Your task to perform on an android device: visit the assistant section in the google photos Image 0: 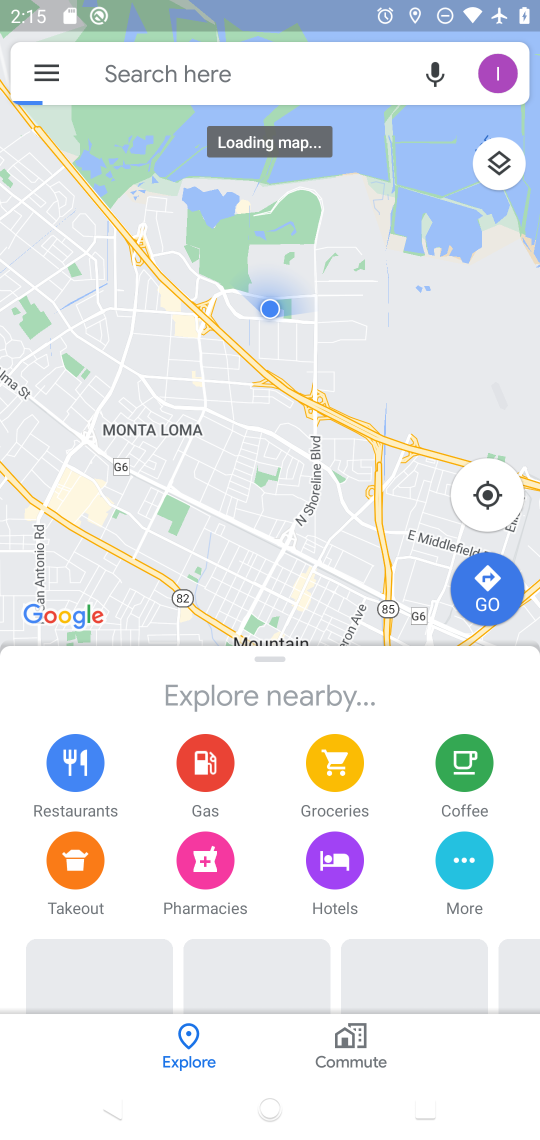
Step 0: press home button
Your task to perform on an android device: visit the assistant section in the google photos Image 1: 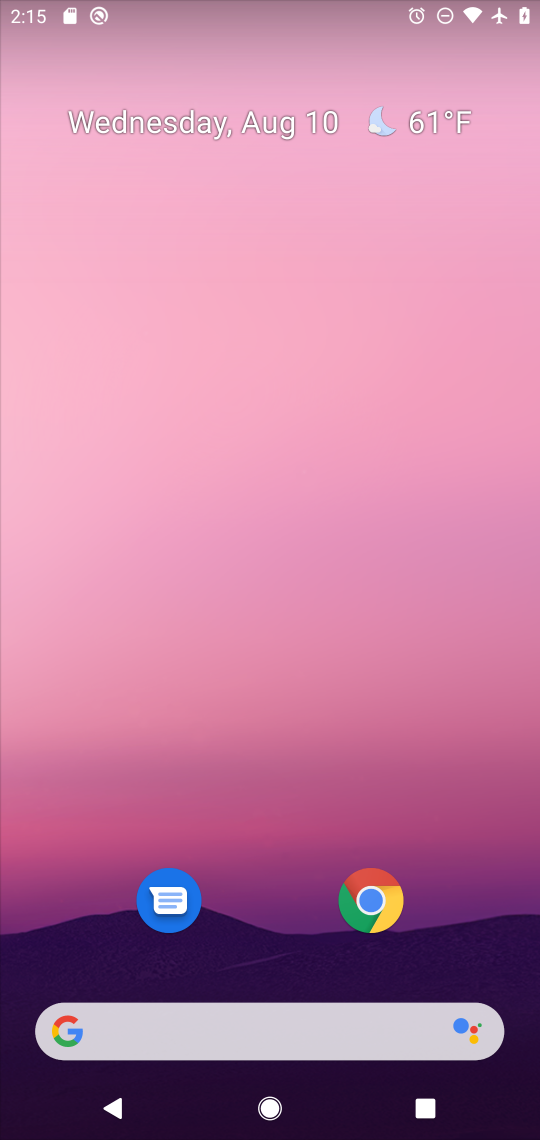
Step 1: drag from (280, 873) to (362, 0)
Your task to perform on an android device: visit the assistant section in the google photos Image 2: 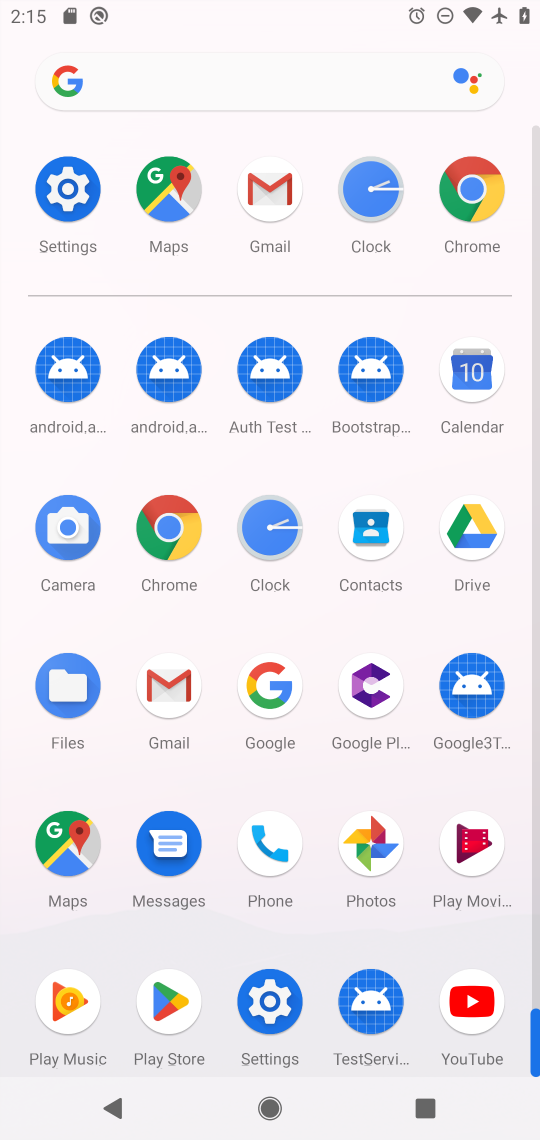
Step 2: click (375, 846)
Your task to perform on an android device: visit the assistant section in the google photos Image 3: 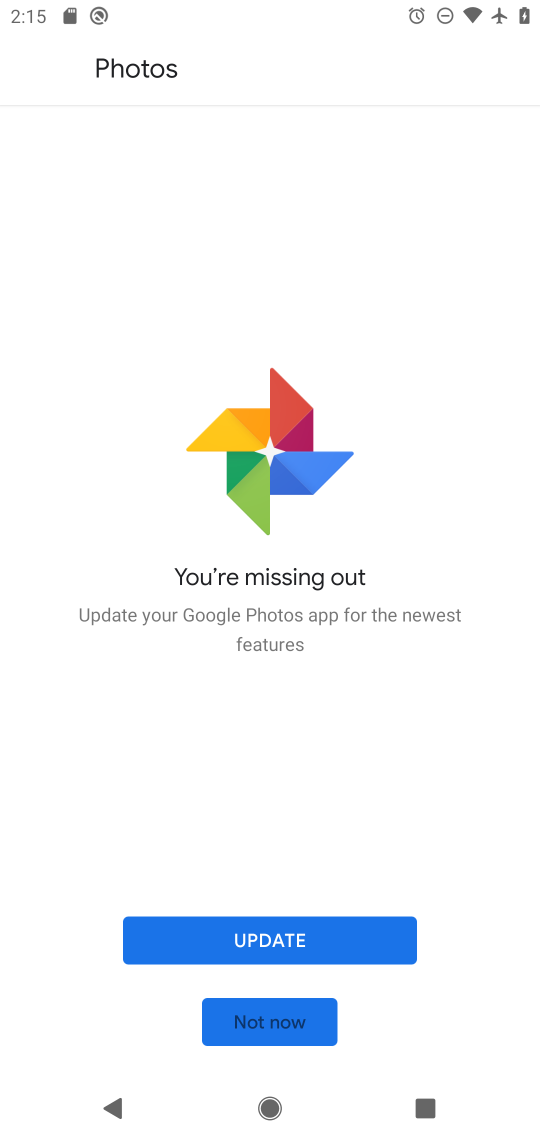
Step 3: click (318, 1032)
Your task to perform on an android device: visit the assistant section in the google photos Image 4: 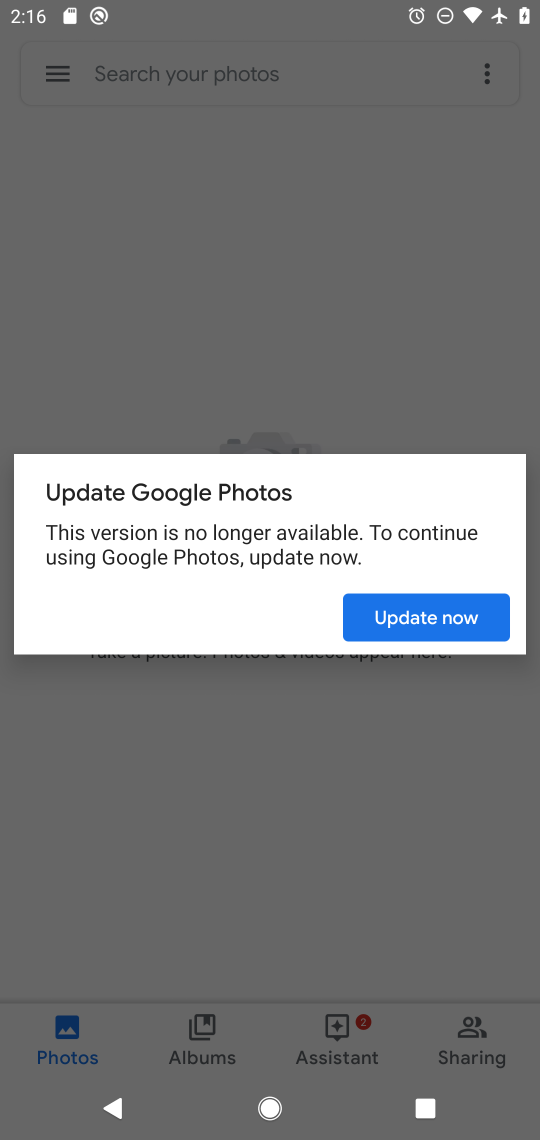
Step 4: click (482, 620)
Your task to perform on an android device: visit the assistant section in the google photos Image 5: 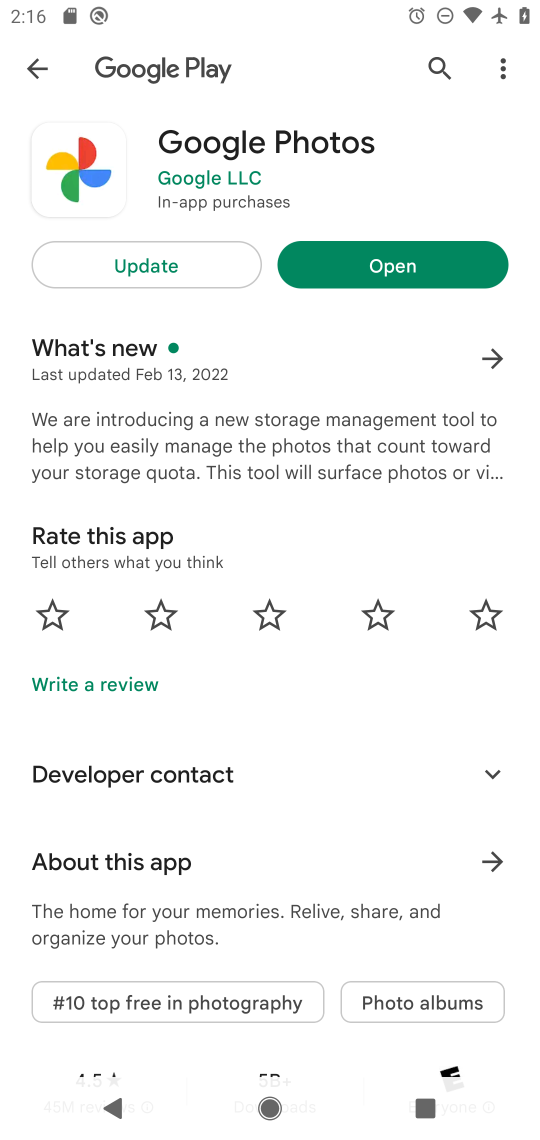
Step 5: click (443, 273)
Your task to perform on an android device: visit the assistant section in the google photos Image 6: 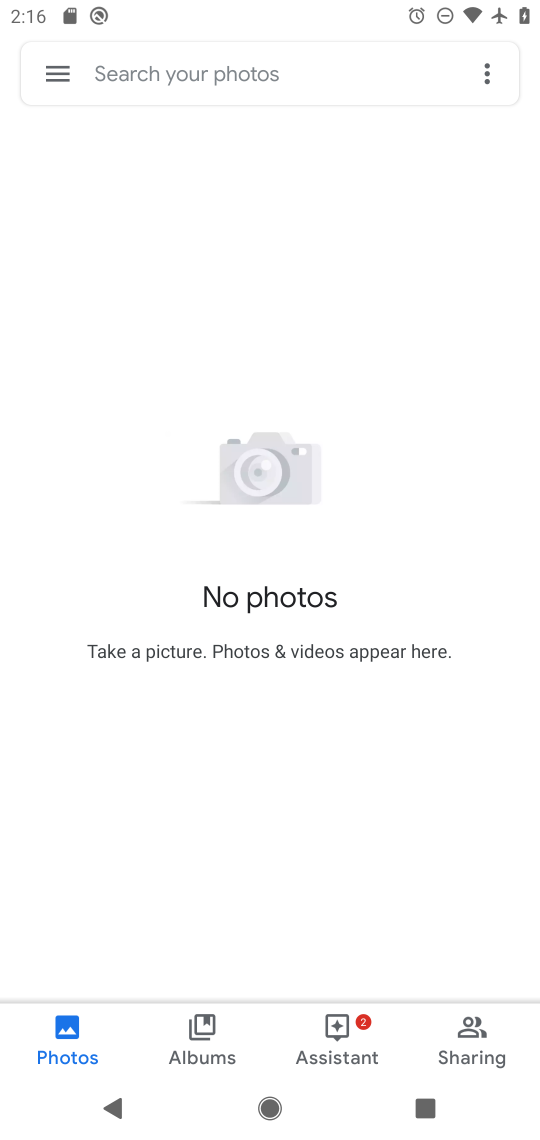
Step 6: click (336, 1044)
Your task to perform on an android device: visit the assistant section in the google photos Image 7: 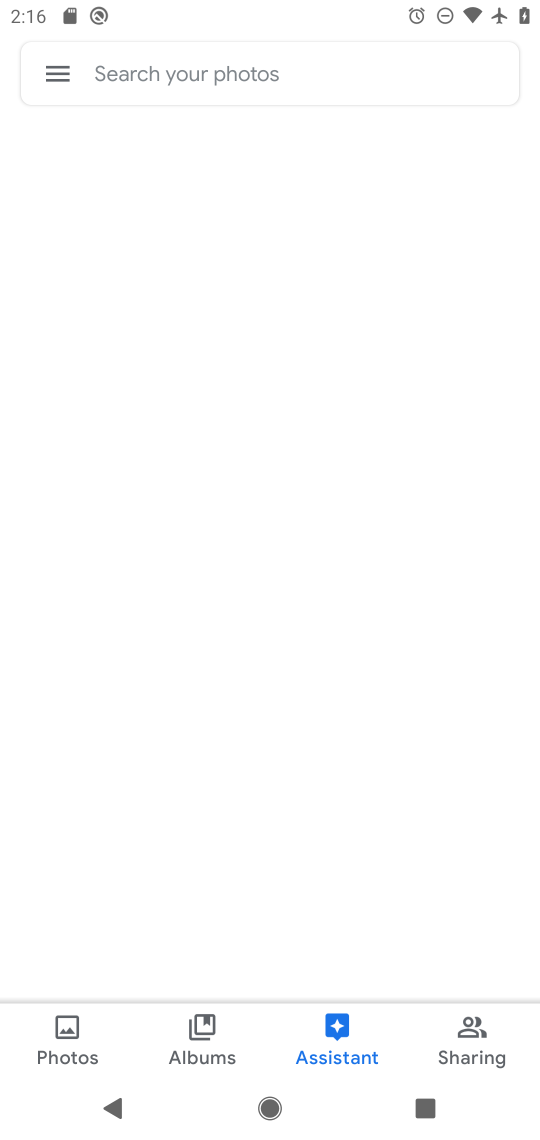
Step 7: task complete